Your task to perform on an android device: Open the calendar and show me this week's events? Image 0: 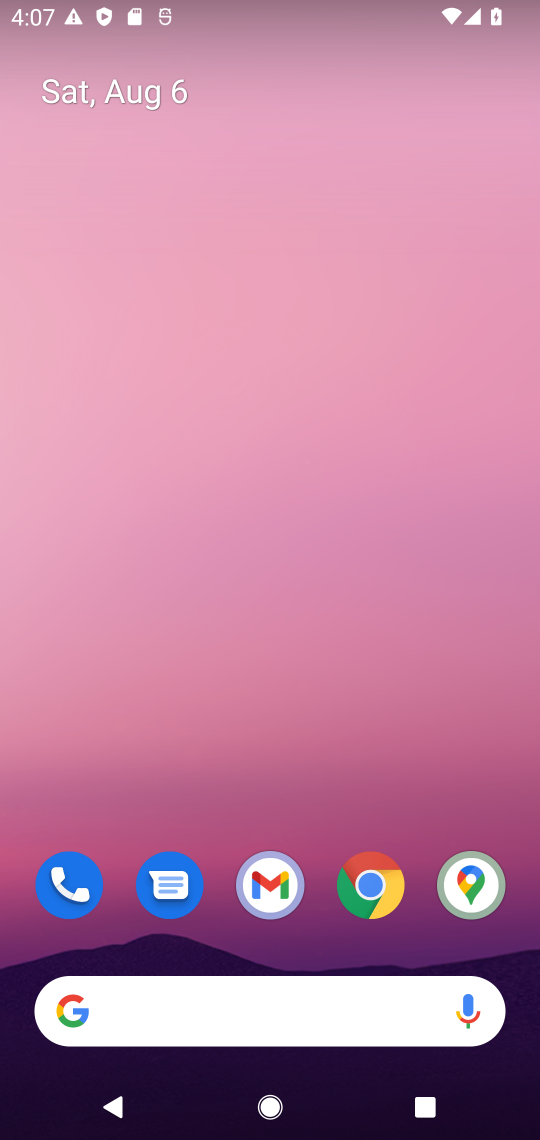
Step 0: drag from (273, 801) to (281, 227)
Your task to perform on an android device: Open the calendar and show me this week's events? Image 1: 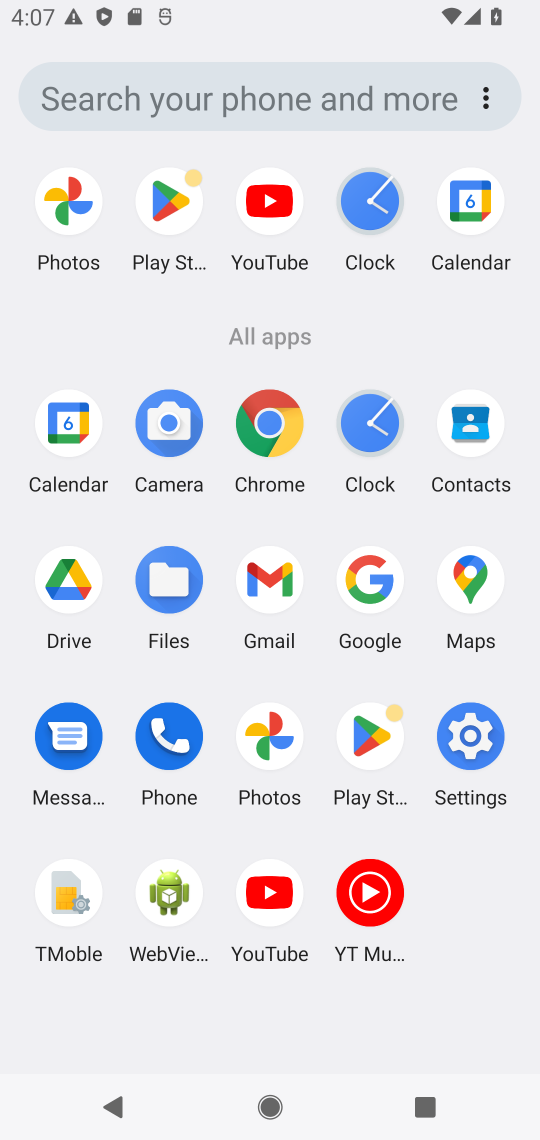
Step 1: click (67, 430)
Your task to perform on an android device: Open the calendar and show me this week's events? Image 2: 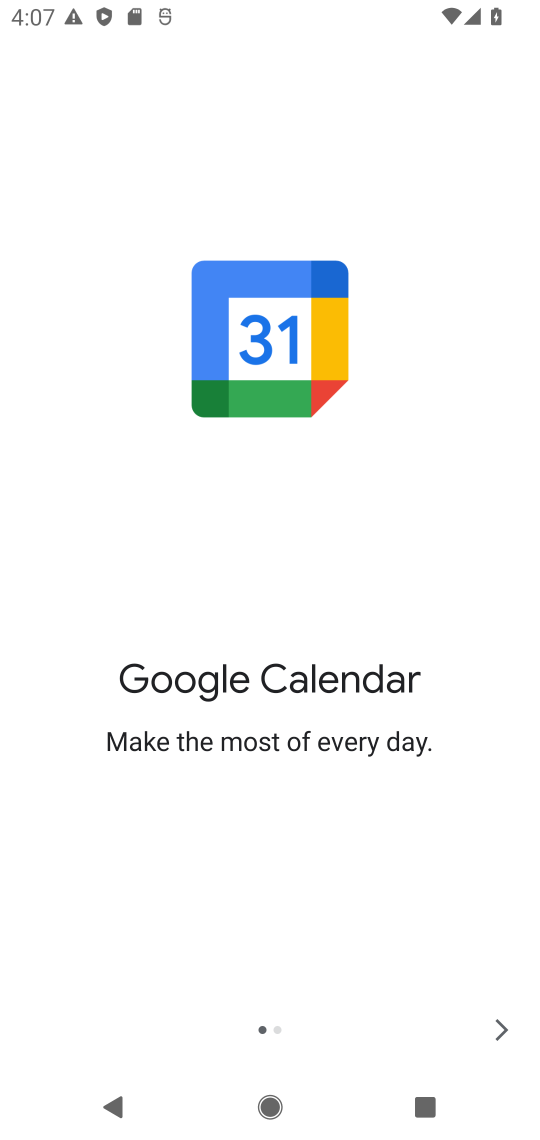
Step 2: click (497, 1041)
Your task to perform on an android device: Open the calendar and show me this week's events? Image 3: 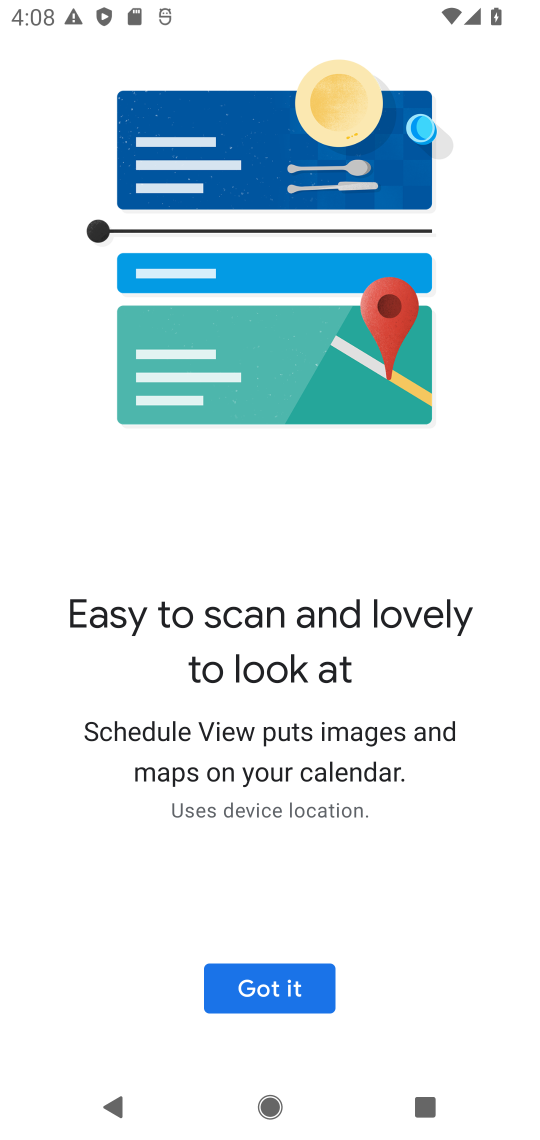
Step 3: click (272, 999)
Your task to perform on an android device: Open the calendar and show me this week's events? Image 4: 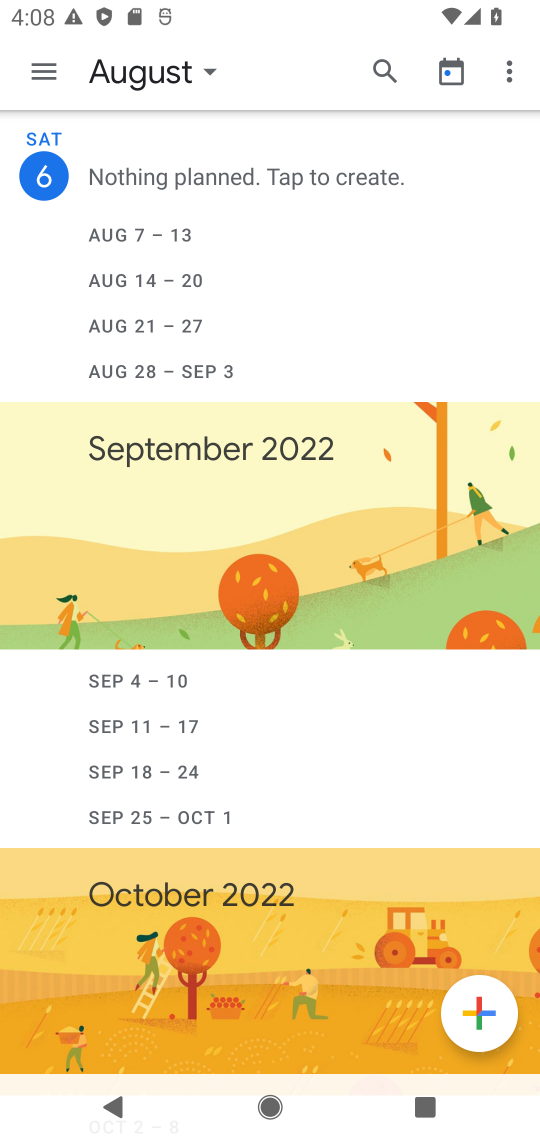
Step 4: task complete